Your task to perform on an android device: Go to Google Image 0: 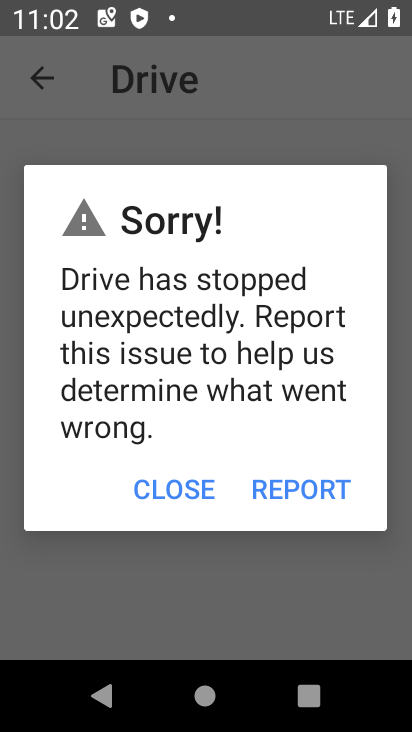
Step 0: press home button
Your task to perform on an android device: Go to Google Image 1: 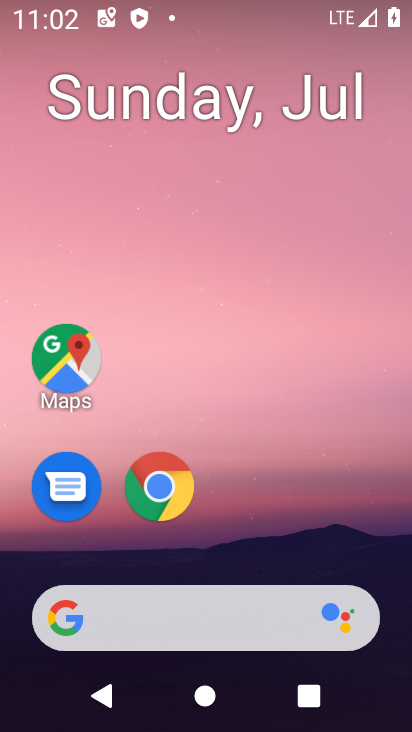
Step 1: drag from (364, 496) to (362, 53)
Your task to perform on an android device: Go to Google Image 2: 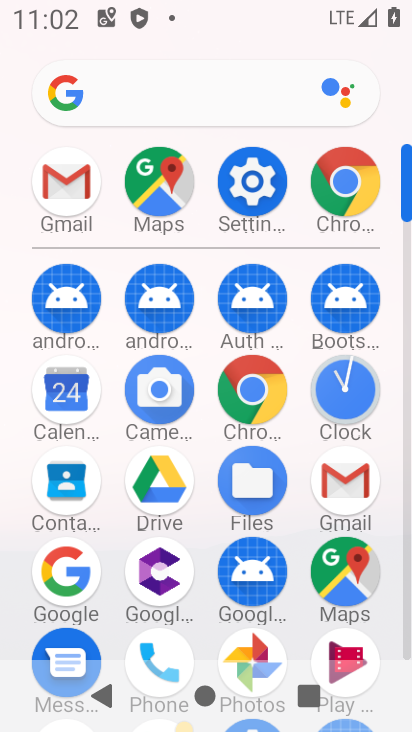
Step 2: click (65, 573)
Your task to perform on an android device: Go to Google Image 3: 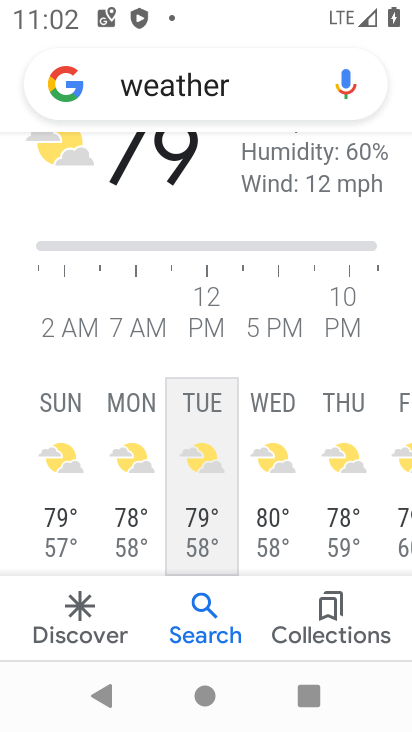
Step 3: task complete